Your task to perform on an android device: Turn off the flashlight Image 0: 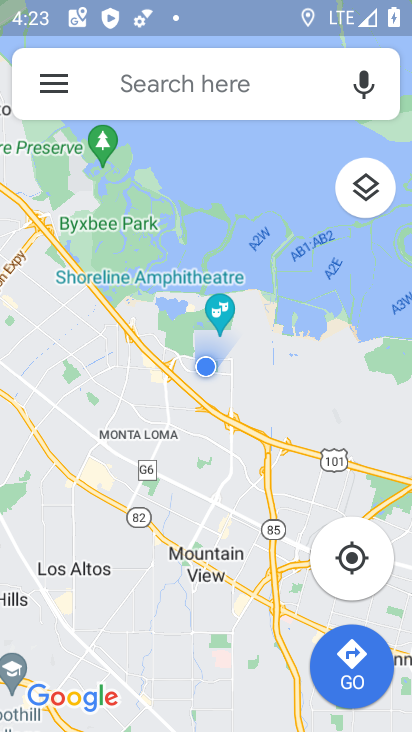
Step 0: press back button
Your task to perform on an android device: Turn off the flashlight Image 1: 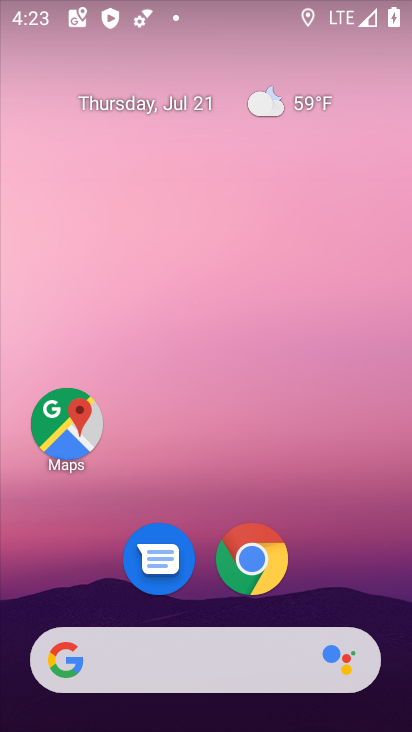
Step 1: drag from (72, 494) to (213, 68)
Your task to perform on an android device: Turn off the flashlight Image 2: 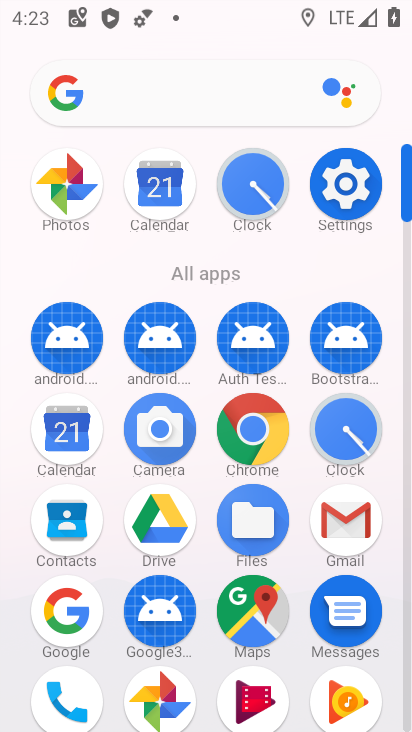
Step 2: click (348, 184)
Your task to perform on an android device: Turn off the flashlight Image 3: 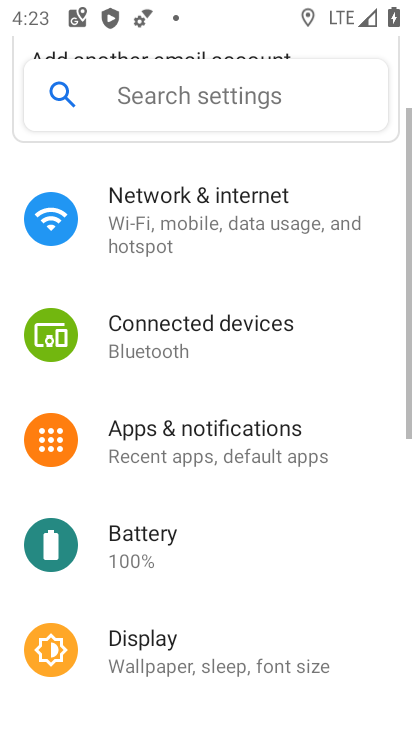
Step 3: click (169, 97)
Your task to perform on an android device: Turn off the flashlight Image 4: 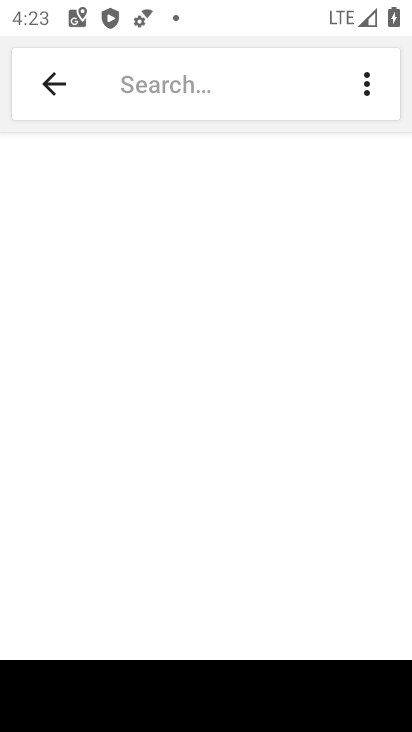
Step 4: type "flashlight"
Your task to perform on an android device: Turn off the flashlight Image 5: 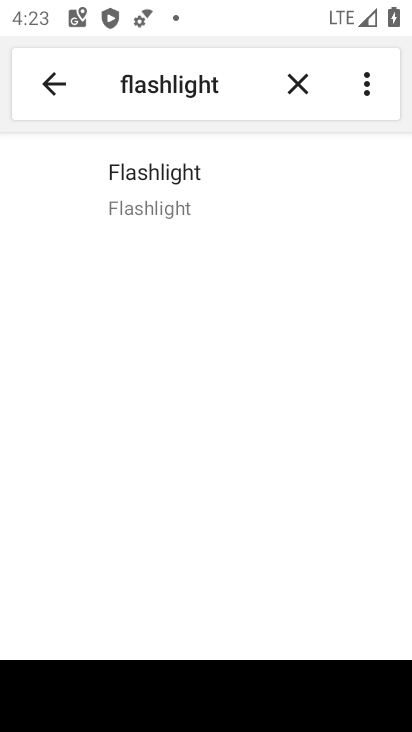
Step 5: click (165, 187)
Your task to perform on an android device: Turn off the flashlight Image 6: 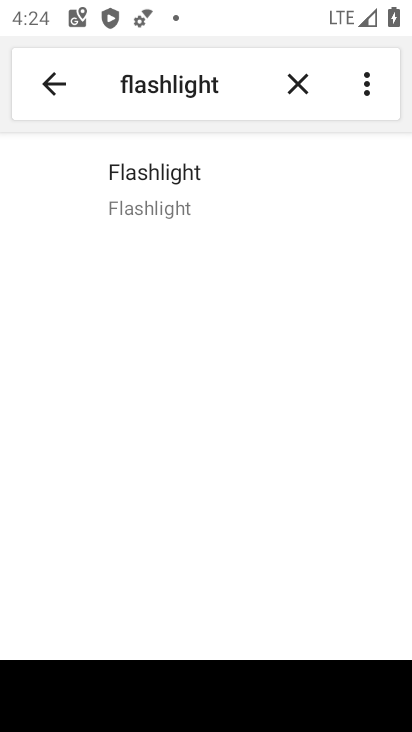
Step 6: click (184, 197)
Your task to perform on an android device: Turn off the flashlight Image 7: 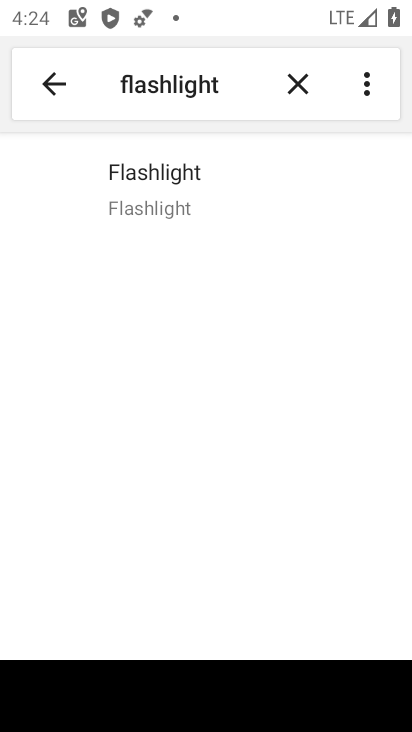
Step 7: task complete